Your task to perform on an android device: What's on my calendar today? Image 0: 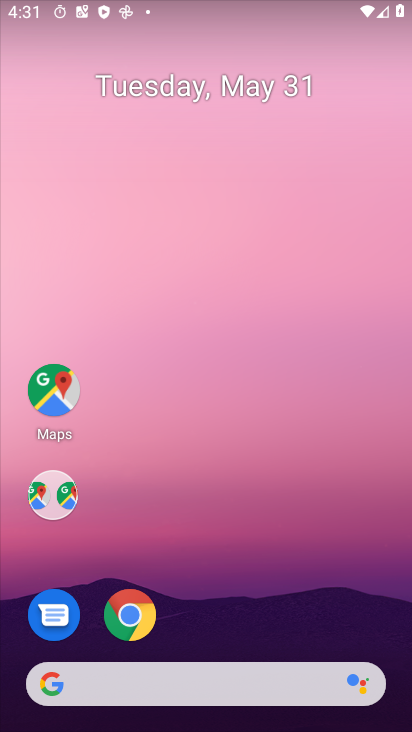
Step 0: drag from (229, 538) to (218, 263)
Your task to perform on an android device: What's on my calendar today? Image 1: 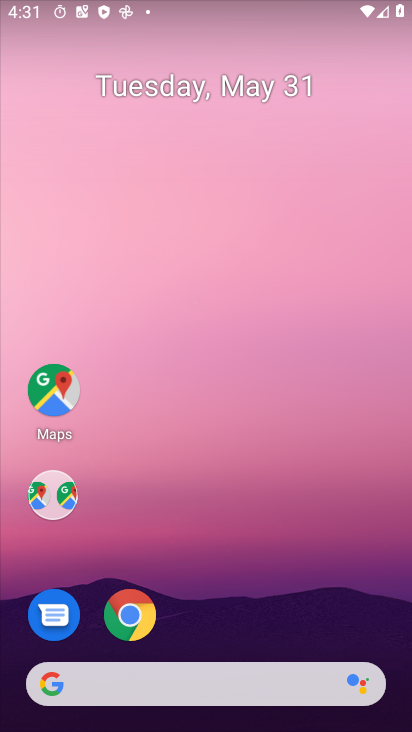
Step 1: drag from (306, 694) to (264, 254)
Your task to perform on an android device: What's on my calendar today? Image 2: 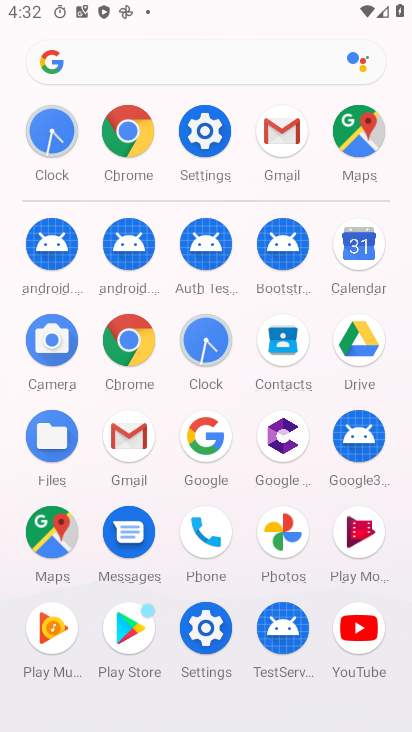
Step 2: click (360, 232)
Your task to perform on an android device: What's on my calendar today? Image 3: 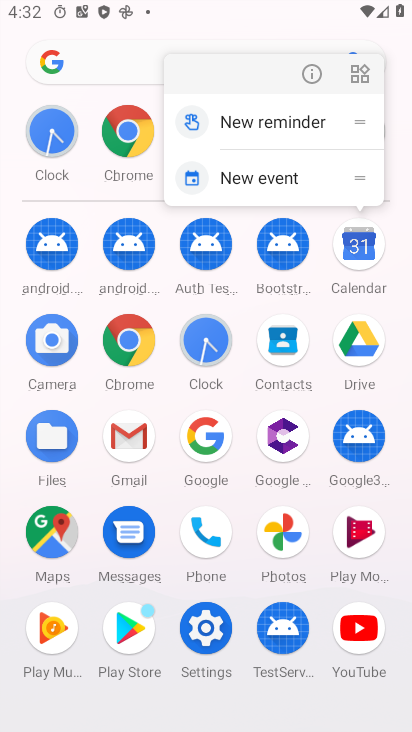
Step 3: click (360, 251)
Your task to perform on an android device: What's on my calendar today? Image 4: 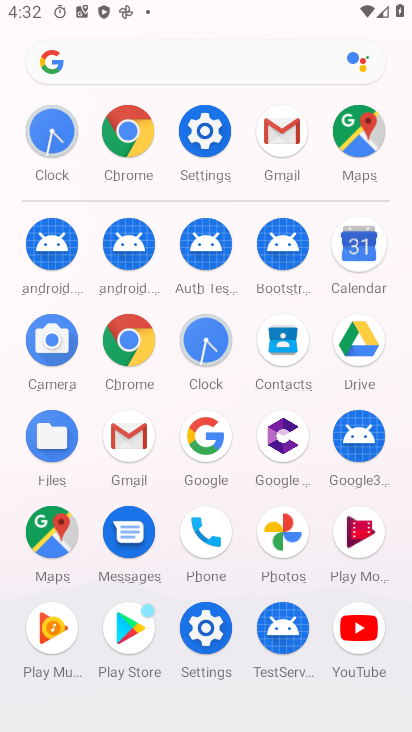
Step 4: click (360, 251)
Your task to perform on an android device: What's on my calendar today? Image 5: 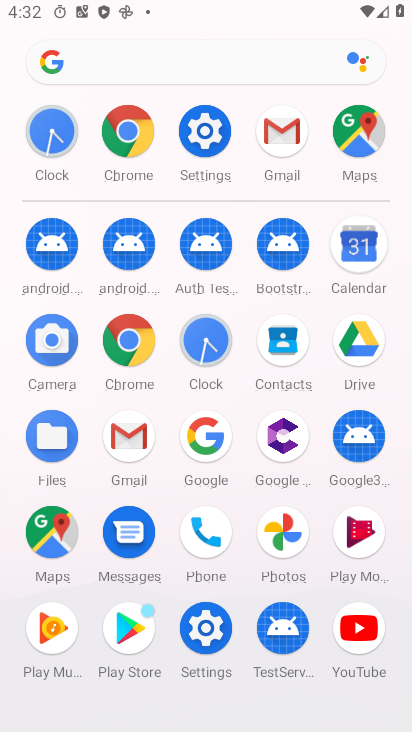
Step 5: click (360, 251)
Your task to perform on an android device: What's on my calendar today? Image 6: 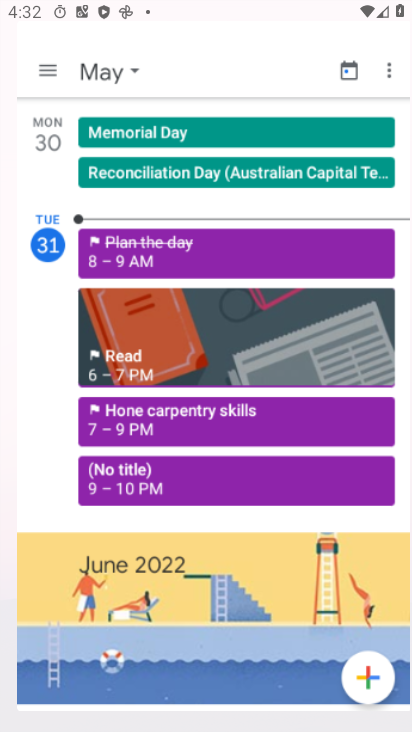
Step 6: click (360, 251)
Your task to perform on an android device: What's on my calendar today? Image 7: 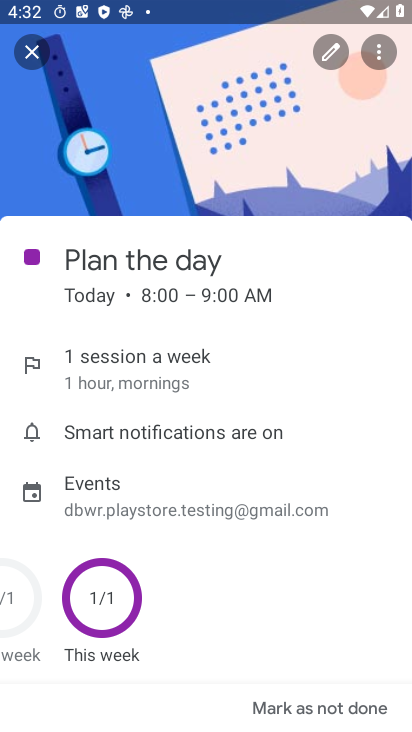
Step 7: click (29, 50)
Your task to perform on an android device: What's on my calendar today? Image 8: 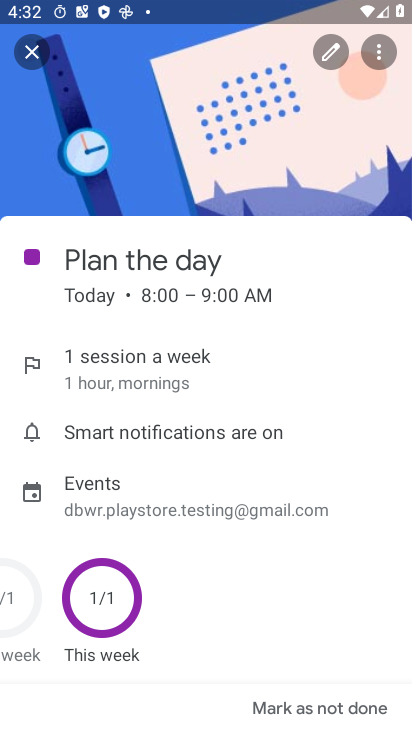
Step 8: click (29, 50)
Your task to perform on an android device: What's on my calendar today? Image 9: 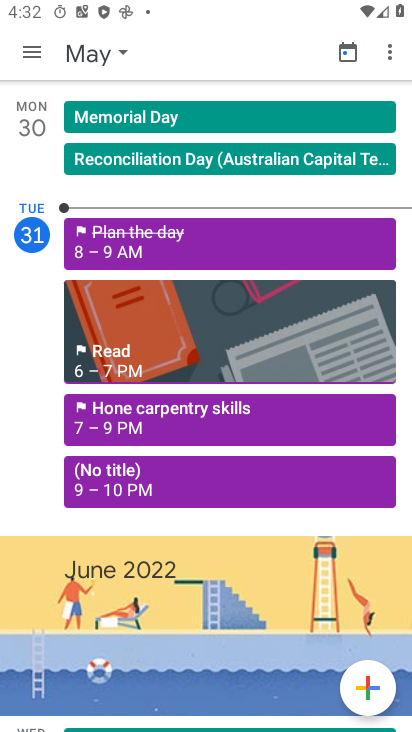
Step 9: click (112, 263)
Your task to perform on an android device: What's on my calendar today? Image 10: 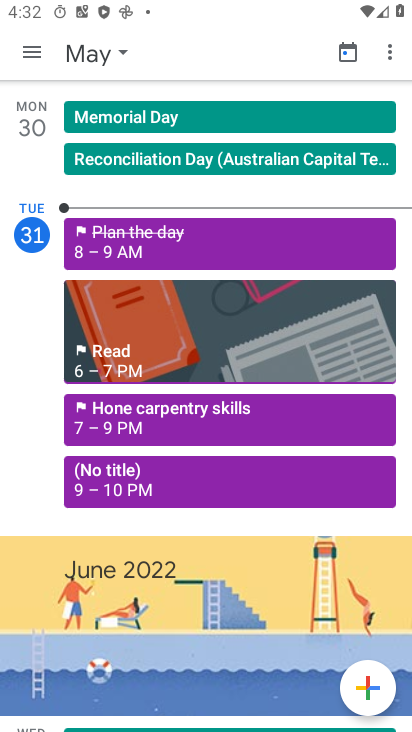
Step 10: task complete